Your task to perform on an android device: check storage Image 0: 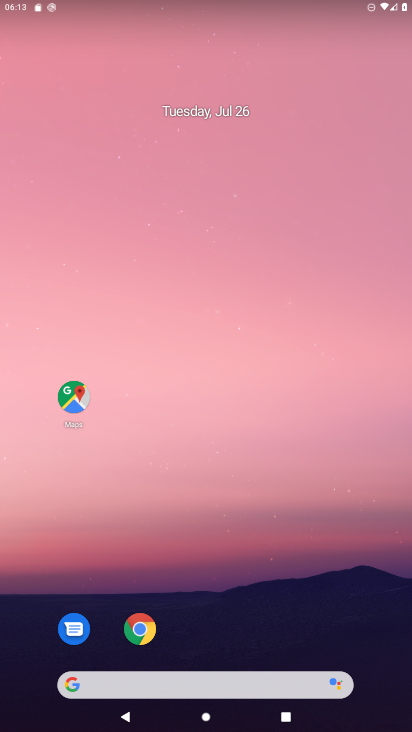
Step 0: drag from (179, 503) to (190, 222)
Your task to perform on an android device: check storage Image 1: 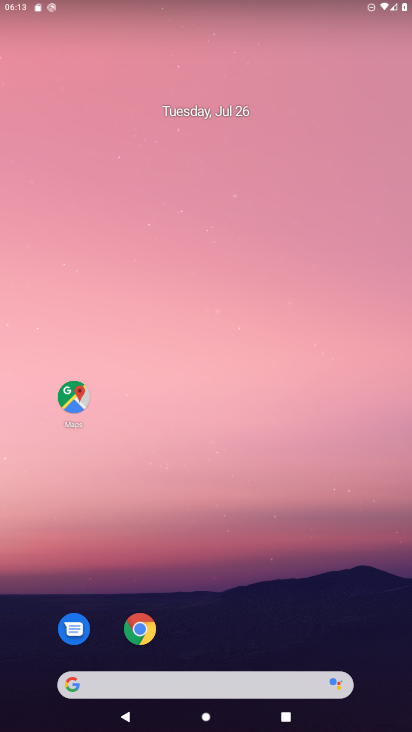
Step 1: drag from (197, 518) to (206, 141)
Your task to perform on an android device: check storage Image 2: 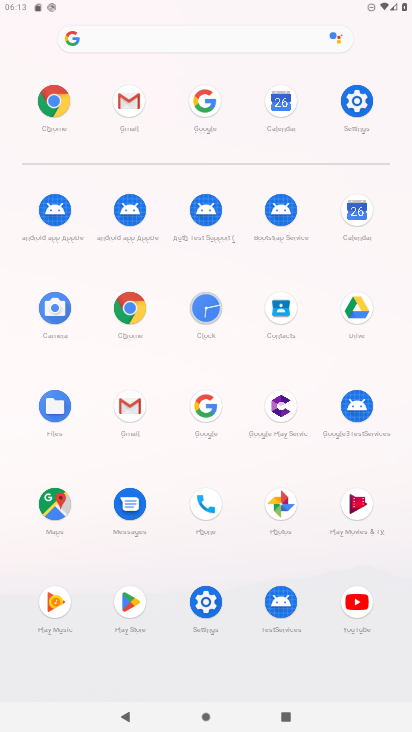
Step 2: click (358, 110)
Your task to perform on an android device: check storage Image 3: 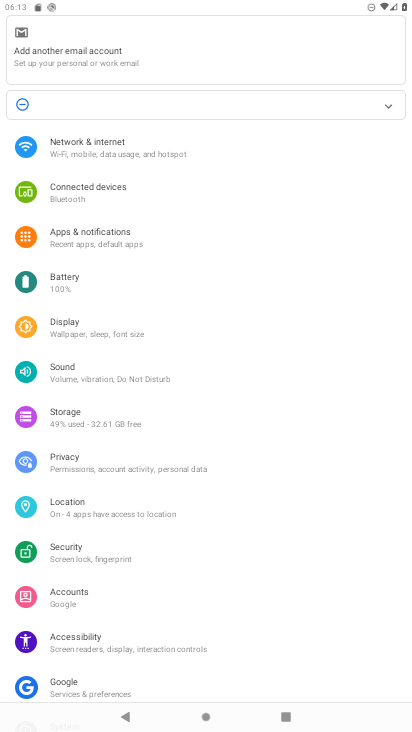
Step 3: click (70, 413)
Your task to perform on an android device: check storage Image 4: 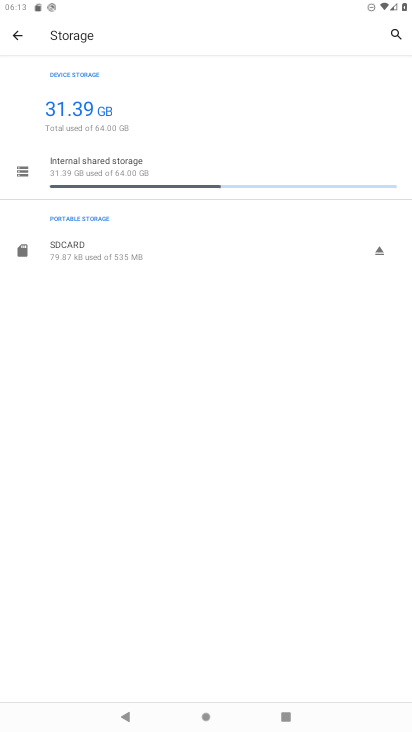
Step 4: task complete